Your task to perform on an android device: Open the map Image 0: 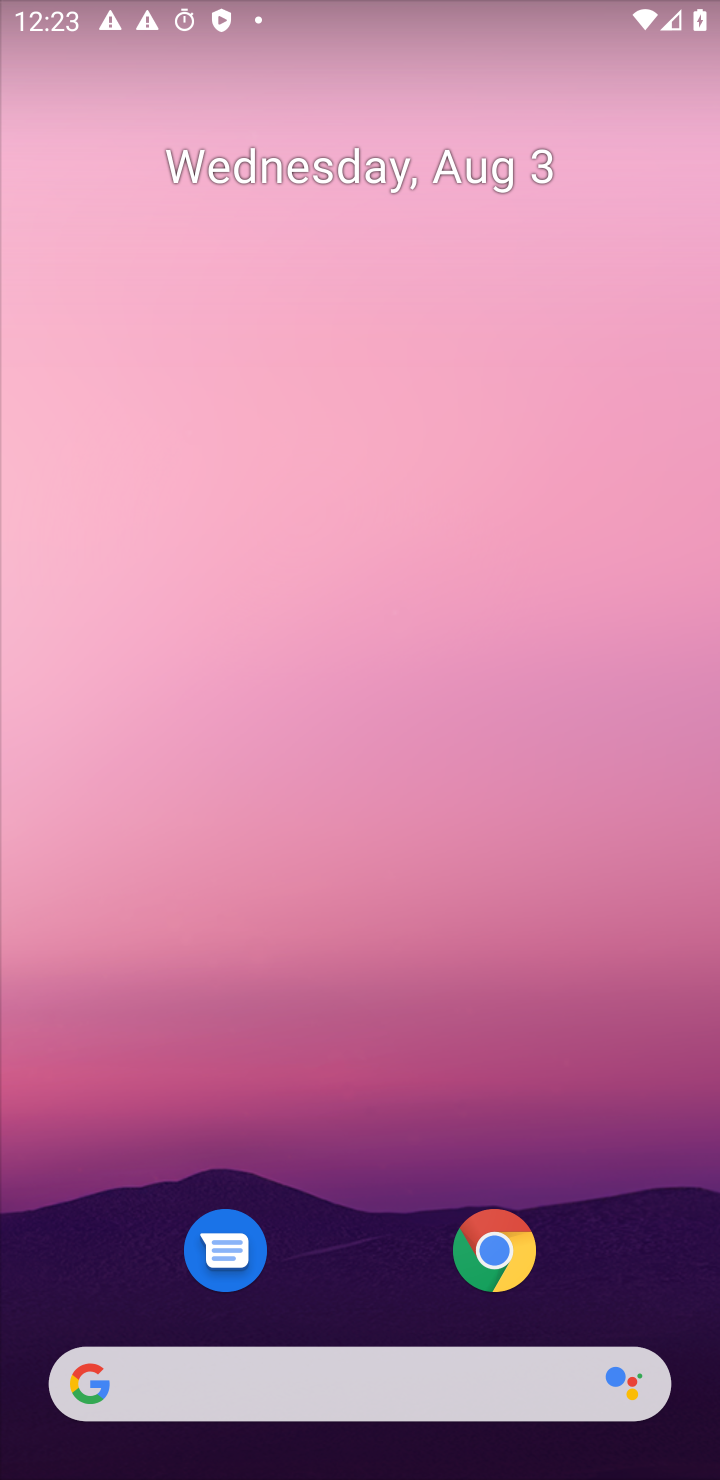
Step 0: drag from (330, 1215) to (720, 318)
Your task to perform on an android device: Open the map Image 1: 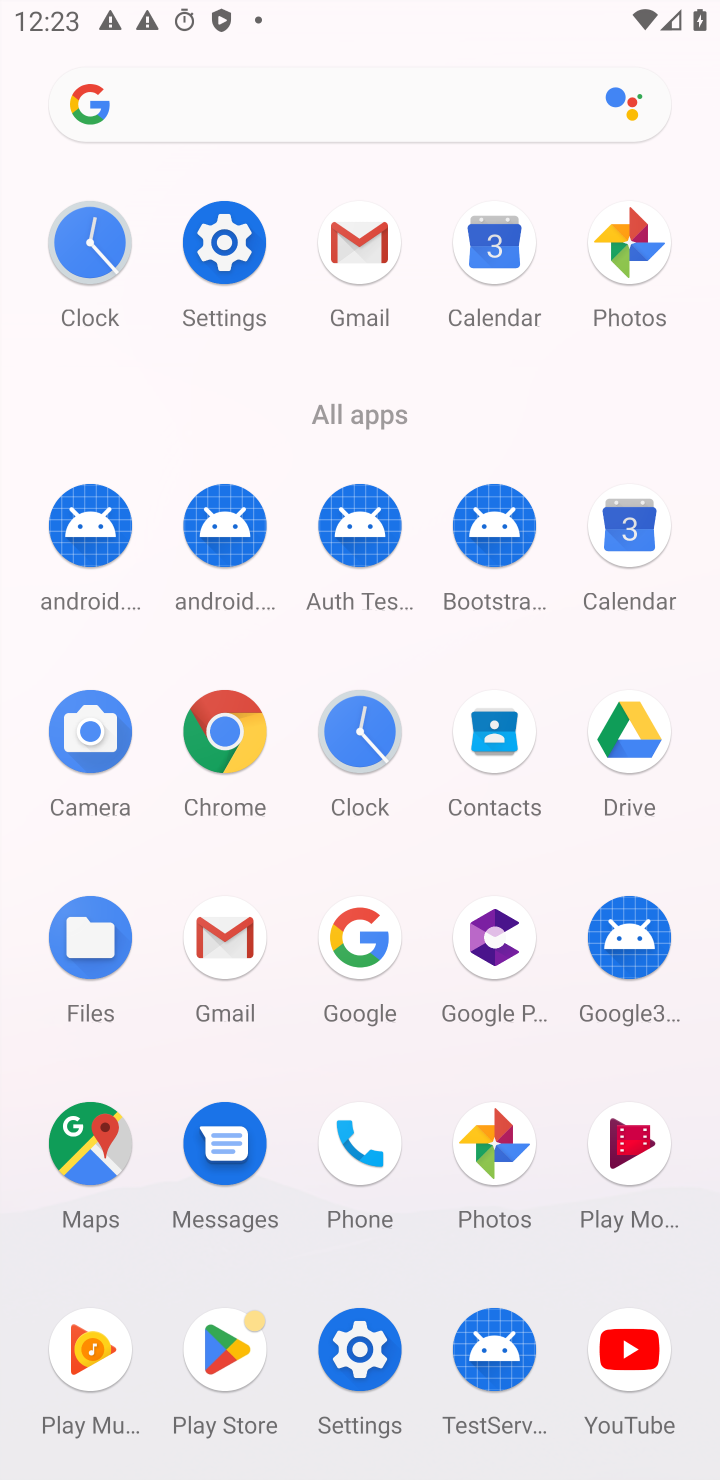
Step 1: click (67, 1145)
Your task to perform on an android device: Open the map Image 2: 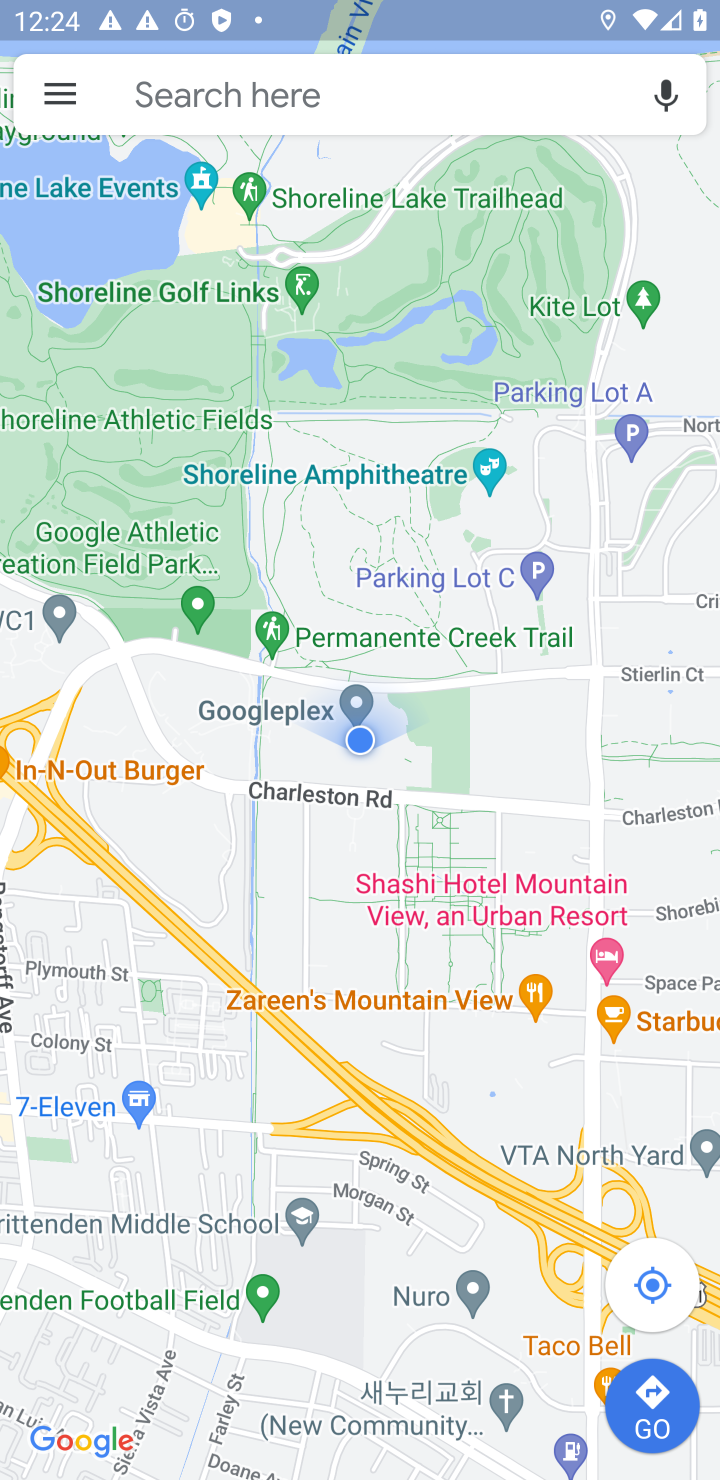
Step 2: task complete